Your task to perform on an android device: remove spam from my inbox in the gmail app Image 0: 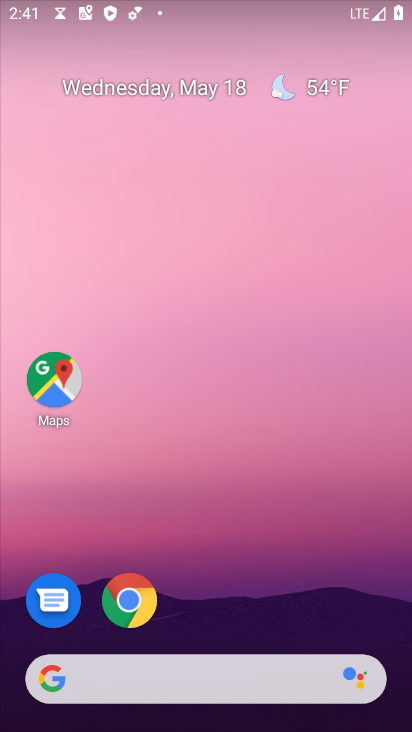
Step 0: press home button
Your task to perform on an android device: remove spam from my inbox in the gmail app Image 1: 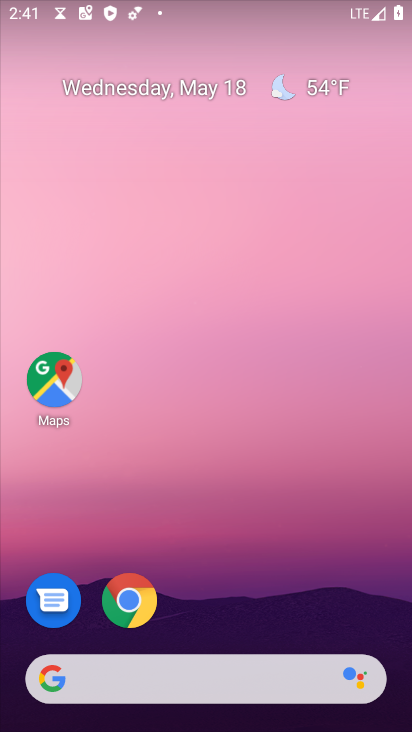
Step 1: drag from (105, 682) to (292, 165)
Your task to perform on an android device: remove spam from my inbox in the gmail app Image 2: 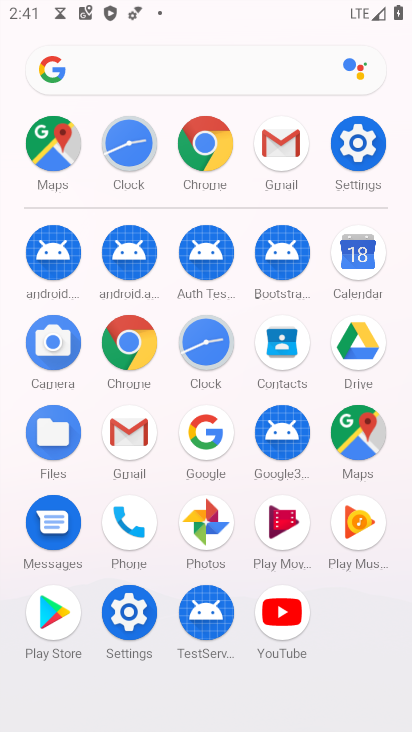
Step 2: click (282, 161)
Your task to perform on an android device: remove spam from my inbox in the gmail app Image 3: 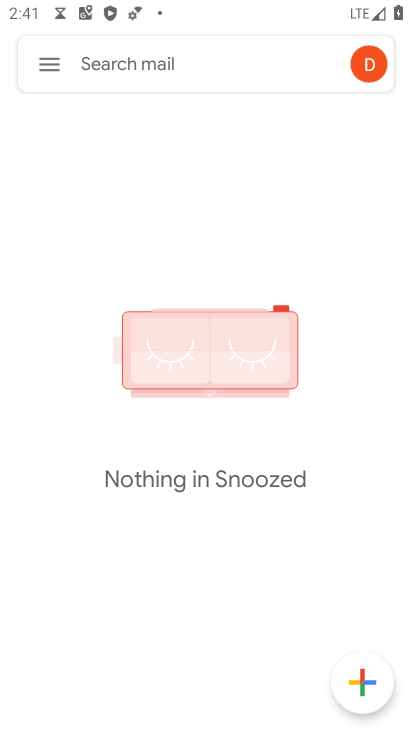
Step 3: click (55, 64)
Your task to perform on an android device: remove spam from my inbox in the gmail app Image 4: 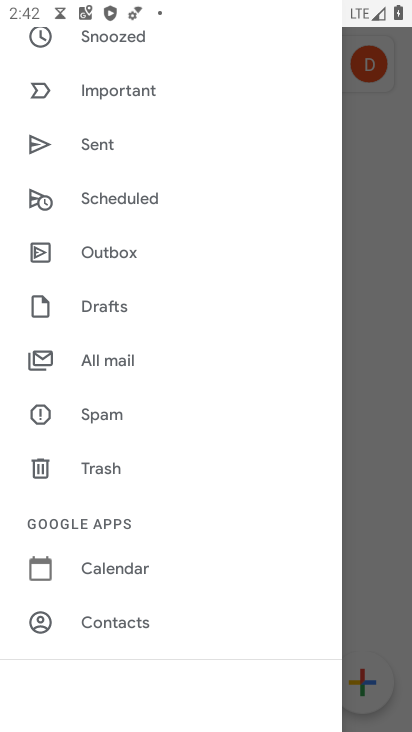
Step 4: click (105, 413)
Your task to perform on an android device: remove spam from my inbox in the gmail app Image 5: 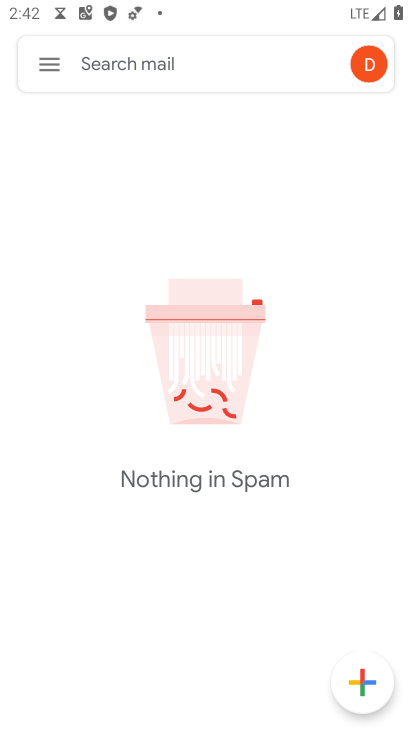
Step 5: task complete